Your task to perform on an android device: Go to Maps Image 0: 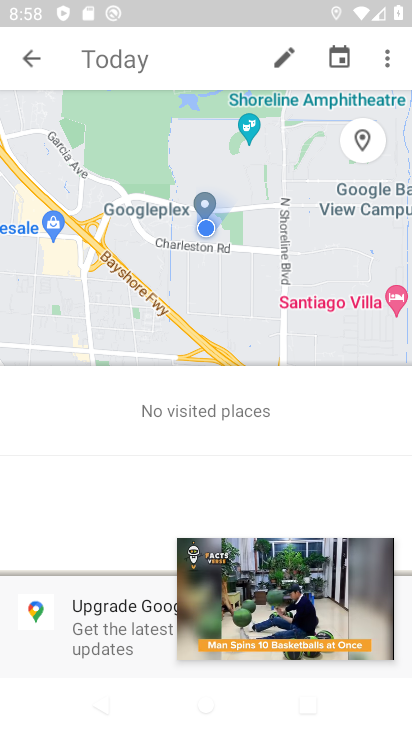
Step 0: click (362, 561)
Your task to perform on an android device: Go to Maps Image 1: 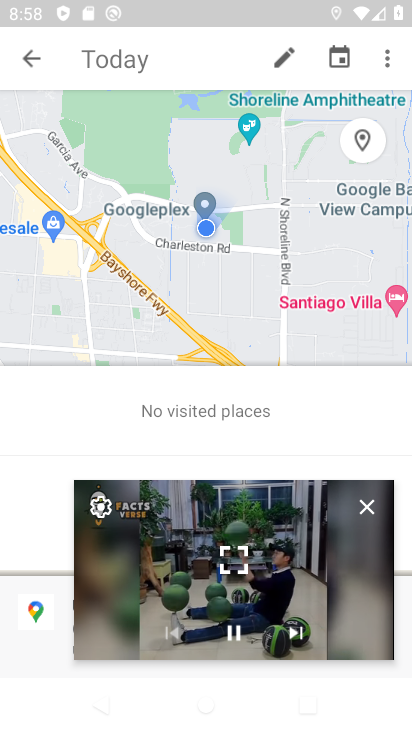
Step 1: click (367, 503)
Your task to perform on an android device: Go to Maps Image 2: 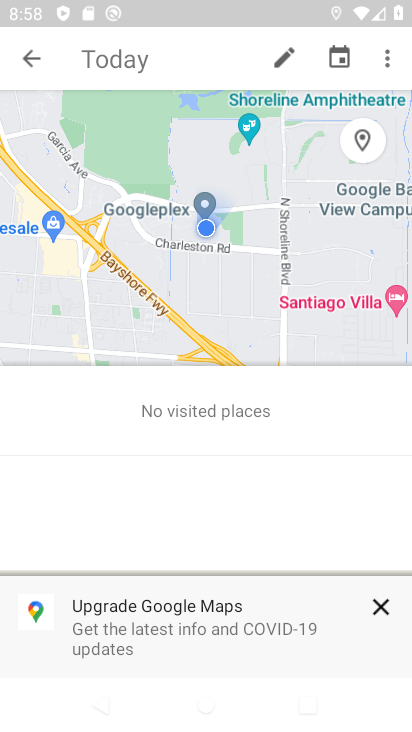
Step 2: click (26, 63)
Your task to perform on an android device: Go to Maps Image 3: 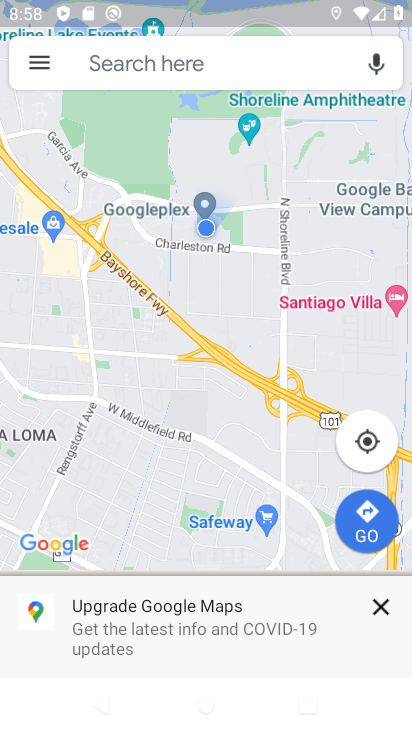
Step 3: task complete